Your task to perform on an android device: turn on wifi Image 0: 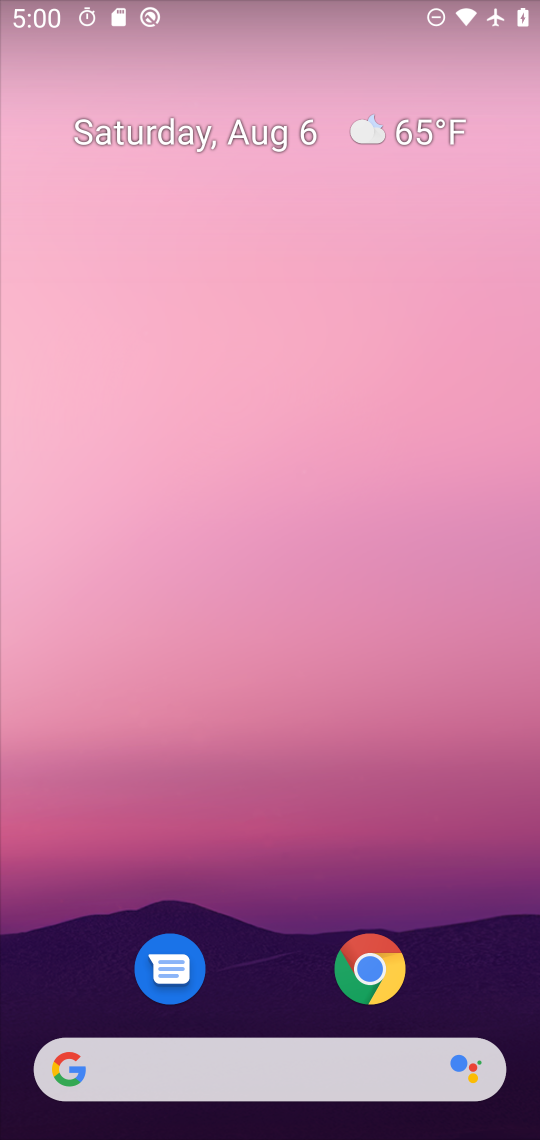
Step 0: press home button
Your task to perform on an android device: turn on wifi Image 1: 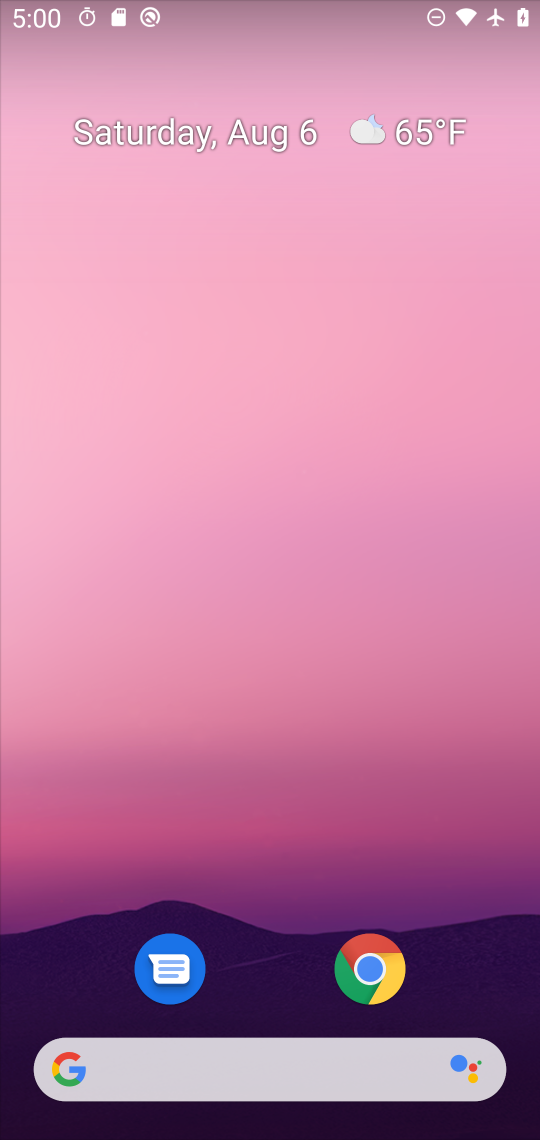
Step 1: task complete